Your task to perform on an android device: Open Amazon Image 0: 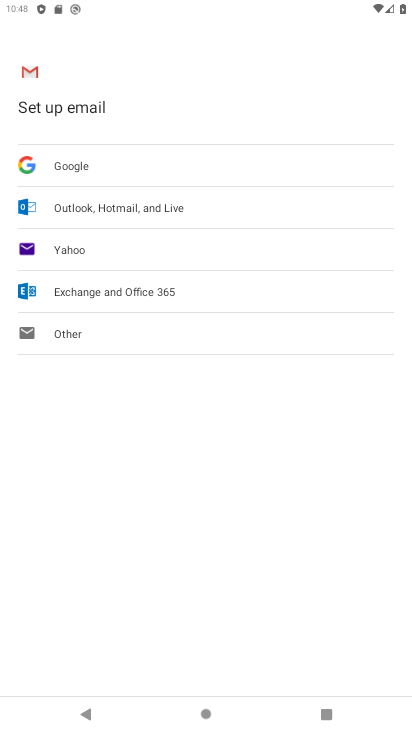
Step 0: press back button
Your task to perform on an android device: Open Amazon Image 1: 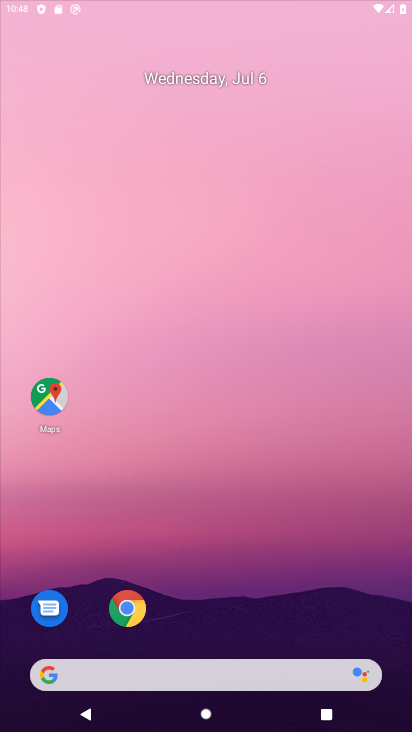
Step 1: press home button
Your task to perform on an android device: Open Amazon Image 2: 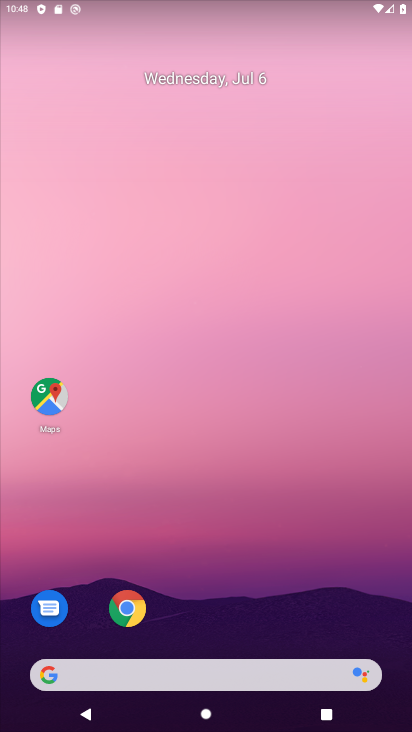
Step 2: press home button
Your task to perform on an android device: Open Amazon Image 3: 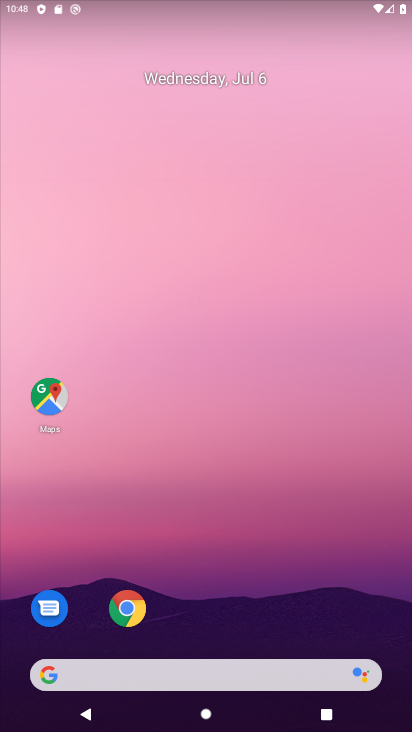
Step 3: drag from (266, 706) to (99, 179)
Your task to perform on an android device: Open Amazon Image 4: 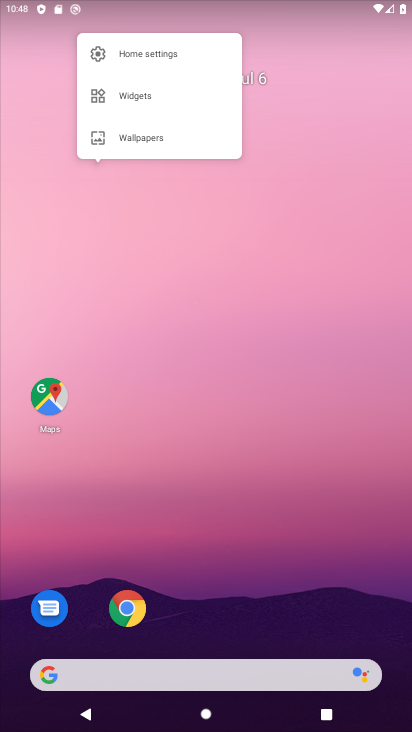
Step 4: drag from (253, 616) to (119, 123)
Your task to perform on an android device: Open Amazon Image 5: 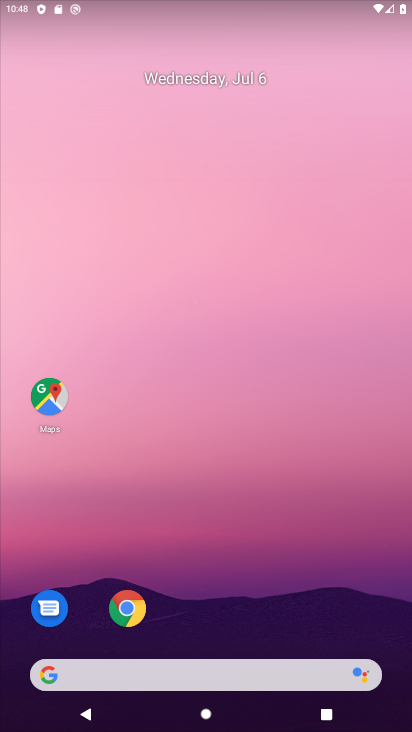
Step 5: drag from (223, 671) to (52, 86)
Your task to perform on an android device: Open Amazon Image 6: 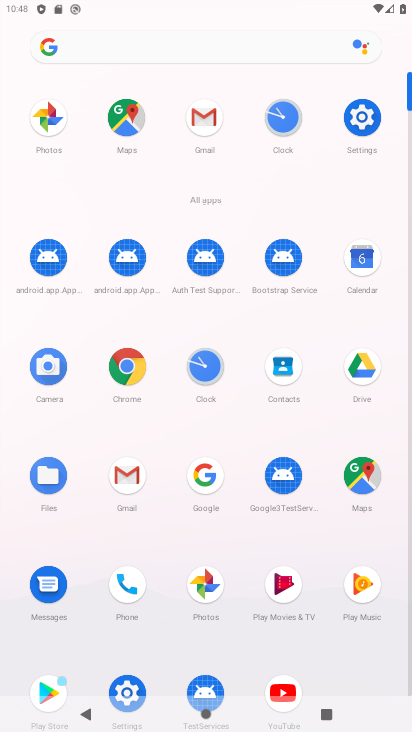
Step 6: click (125, 390)
Your task to perform on an android device: Open Amazon Image 7: 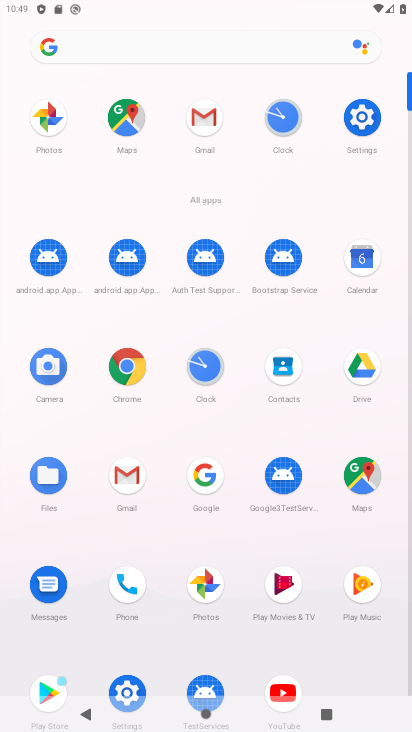
Step 7: click (134, 375)
Your task to perform on an android device: Open Amazon Image 8: 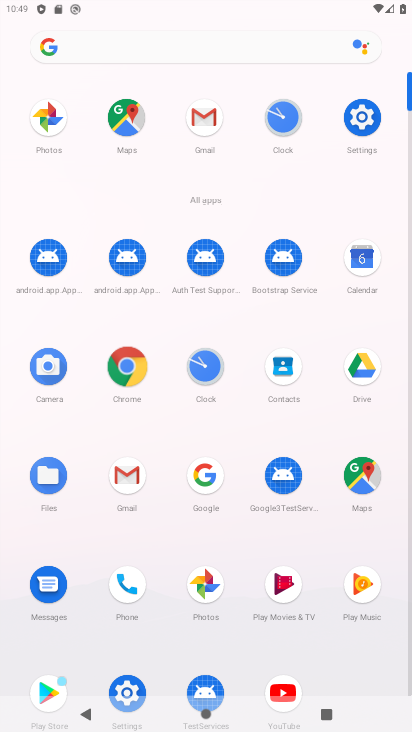
Step 8: click (125, 377)
Your task to perform on an android device: Open Amazon Image 9: 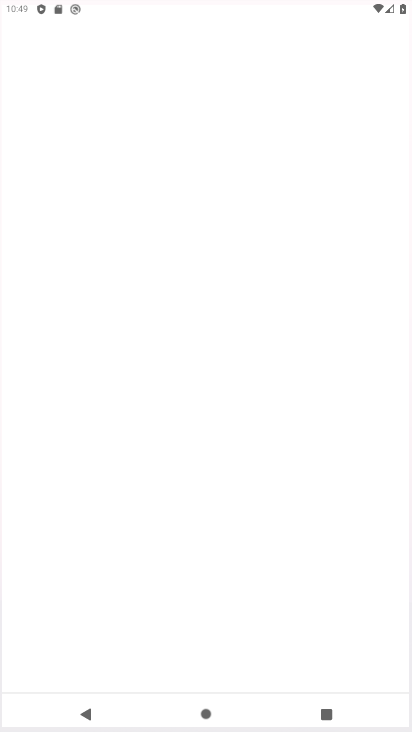
Step 9: click (128, 380)
Your task to perform on an android device: Open Amazon Image 10: 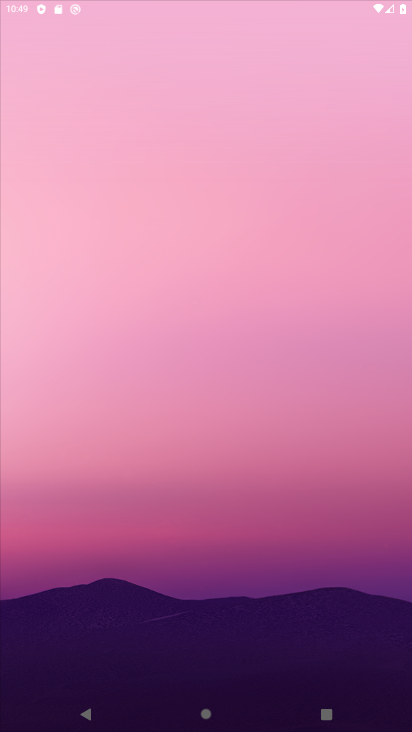
Step 10: click (132, 377)
Your task to perform on an android device: Open Amazon Image 11: 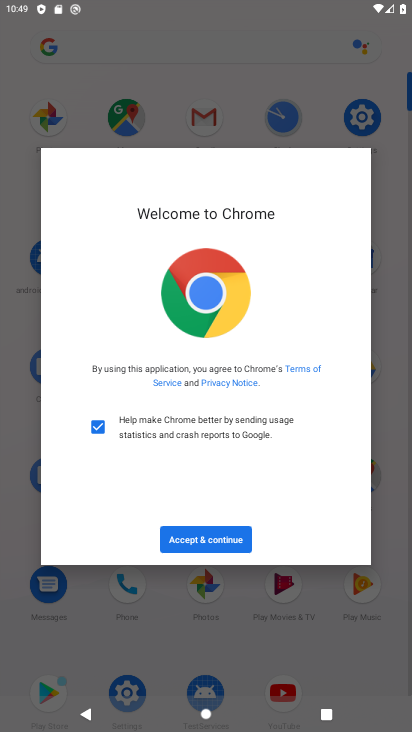
Step 11: click (224, 544)
Your task to perform on an android device: Open Amazon Image 12: 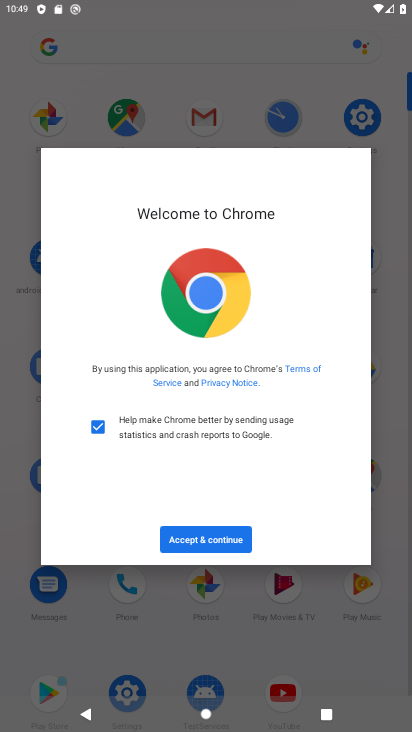
Step 12: click (210, 536)
Your task to perform on an android device: Open Amazon Image 13: 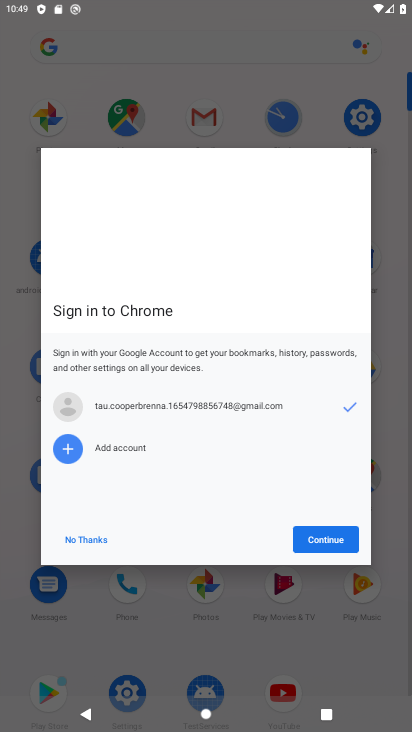
Step 13: click (210, 536)
Your task to perform on an android device: Open Amazon Image 14: 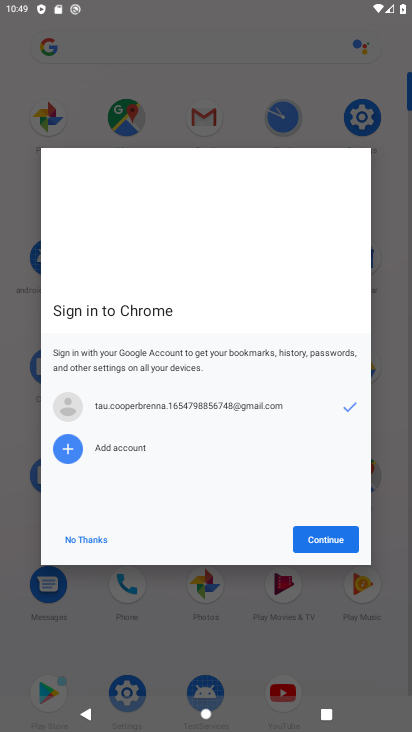
Step 14: click (212, 534)
Your task to perform on an android device: Open Amazon Image 15: 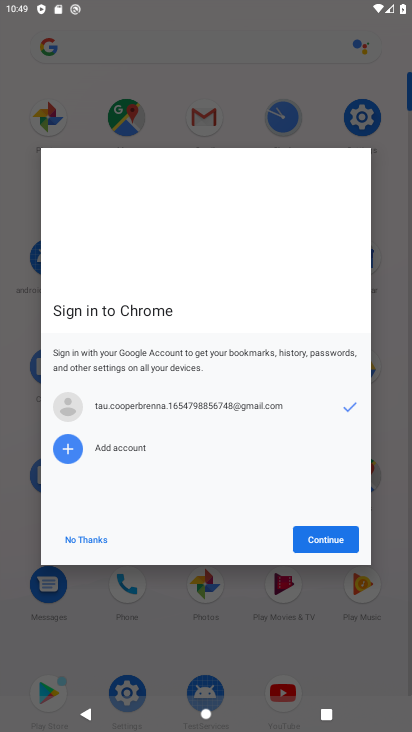
Step 15: click (212, 534)
Your task to perform on an android device: Open Amazon Image 16: 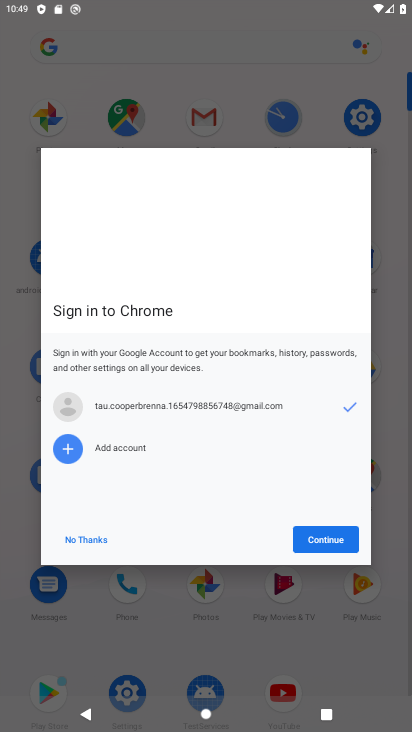
Step 16: click (346, 550)
Your task to perform on an android device: Open Amazon Image 17: 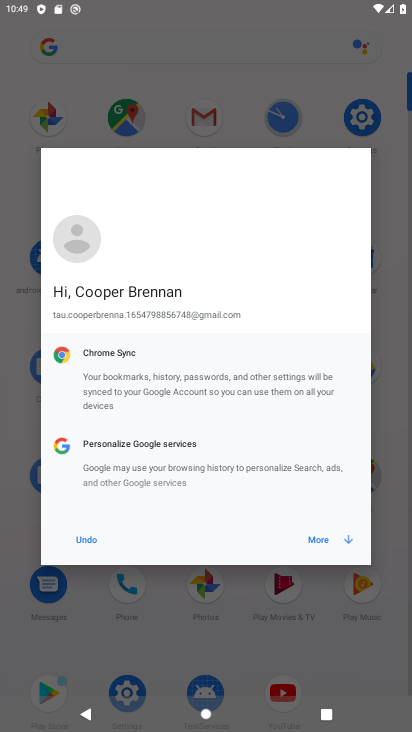
Step 17: click (337, 537)
Your task to perform on an android device: Open Amazon Image 18: 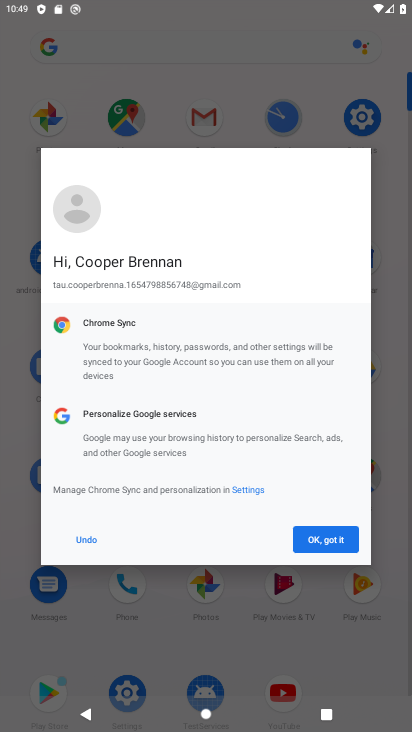
Step 18: click (336, 531)
Your task to perform on an android device: Open Amazon Image 19: 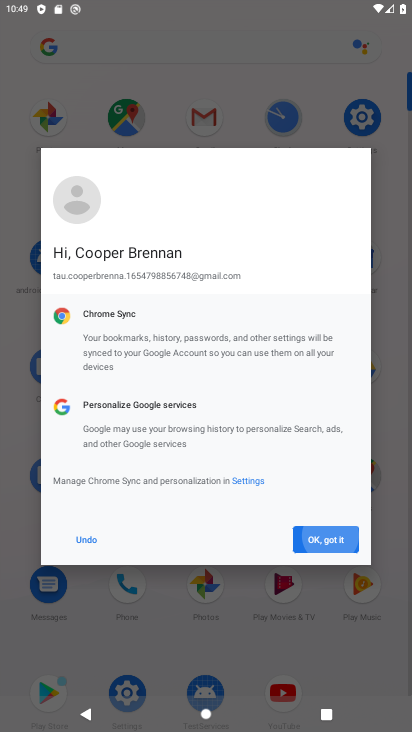
Step 19: click (336, 539)
Your task to perform on an android device: Open Amazon Image 20: 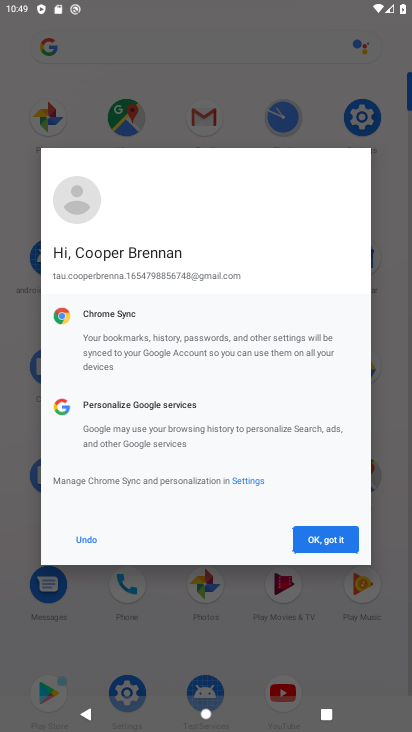
Step 20: click (338, 536)
Your task to perform on an android device: Open Amazon Image 21: 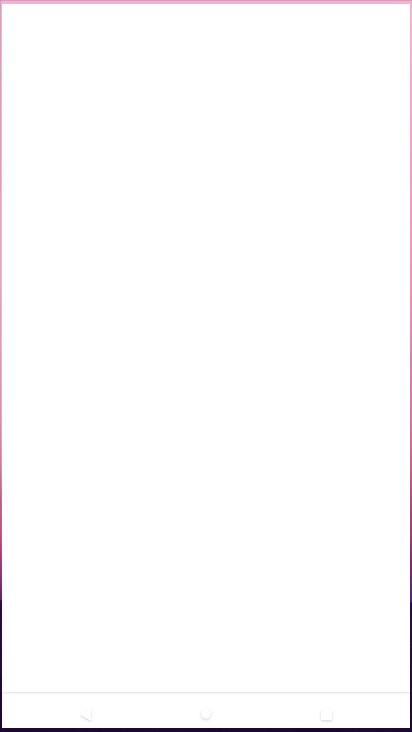
Step 21: click (336, 529)
Your task to perform on an android device: Open Amazon Image 22: 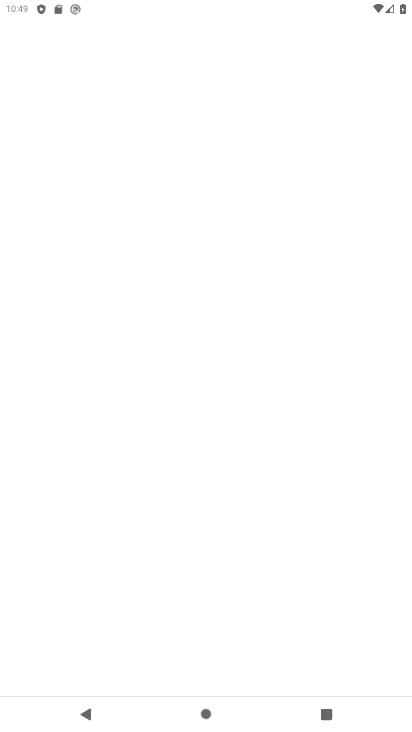
Step 22: click (334, 529)
Your task to perform on an android device: Open Amazon Image 23: 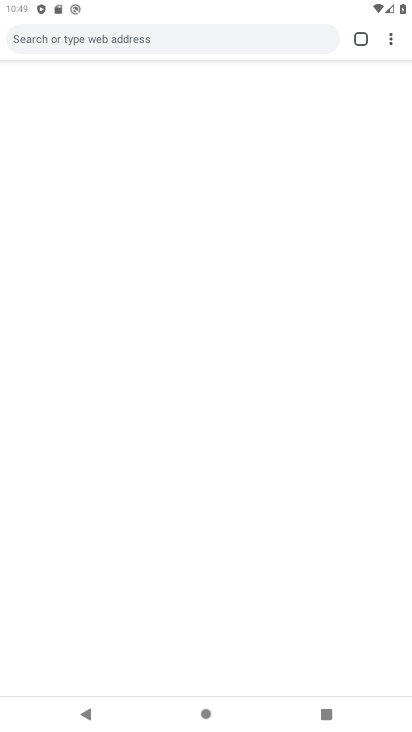
Step 23: click (331, 534)
Your task to perform on an android device: Open Amazon Image 24: 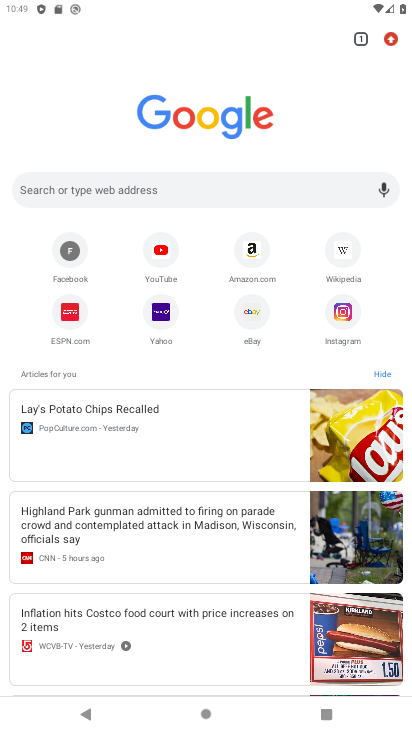
Step 24: click (251, 260)
Your task to perform on an android device: Open Amazon Image 25: 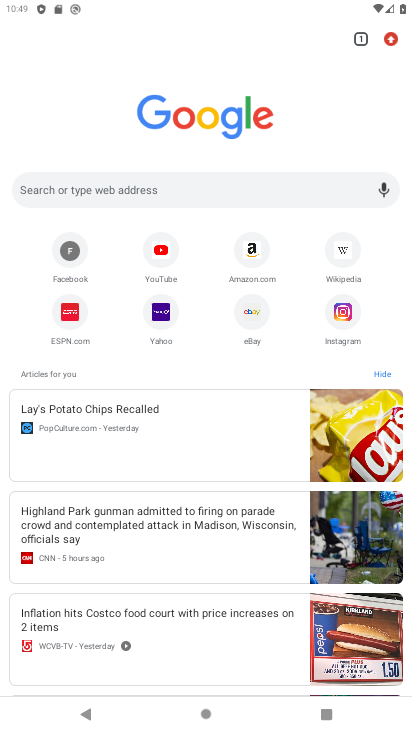
Step 25: click (249, 257)
Your task to perform on an android device: Open Amazon Image 26: 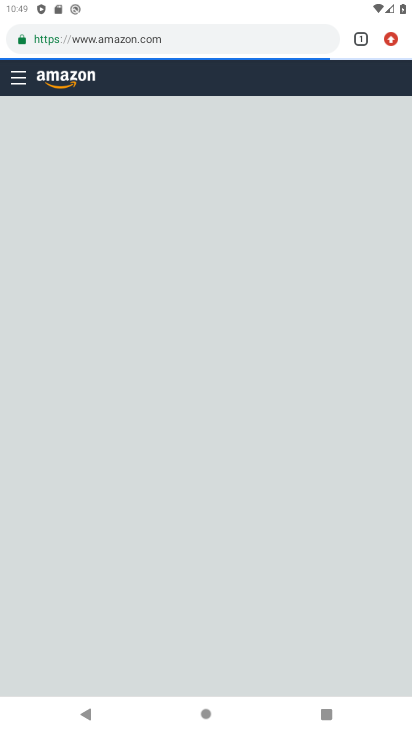
Step 26: task complete